Your task to perform on an android device: Search for pizza restaurants on Maps Image 0: 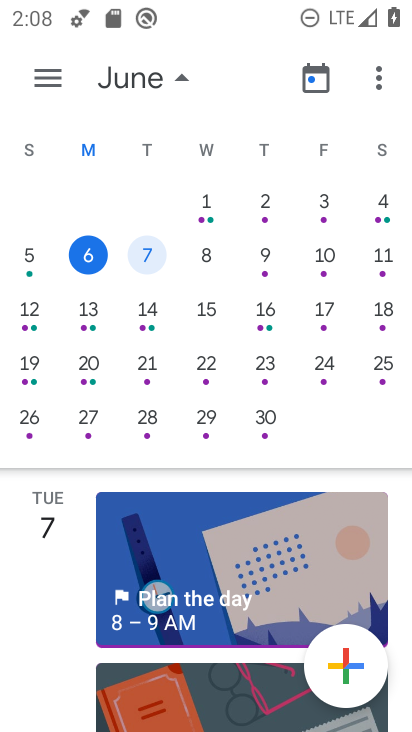
Step 0: press home button
Your task to perform on an android device: Search for pizza restaurants on Maps Image 1: 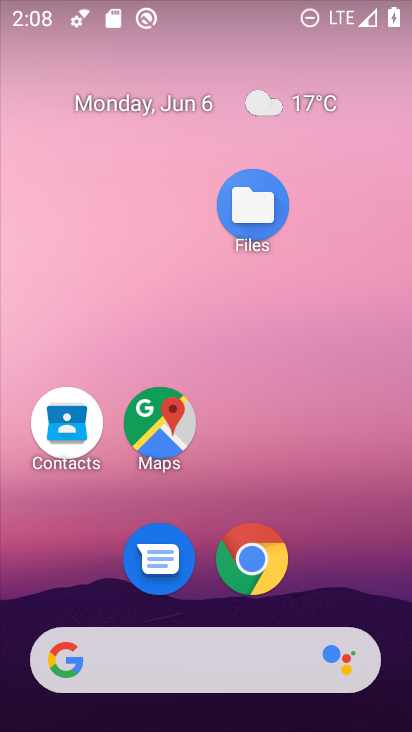
Step 1: drag from (295, 612) to (293, 124)
Your task to perform on an android device: Search for pizza restaurants on Maps Image 2: 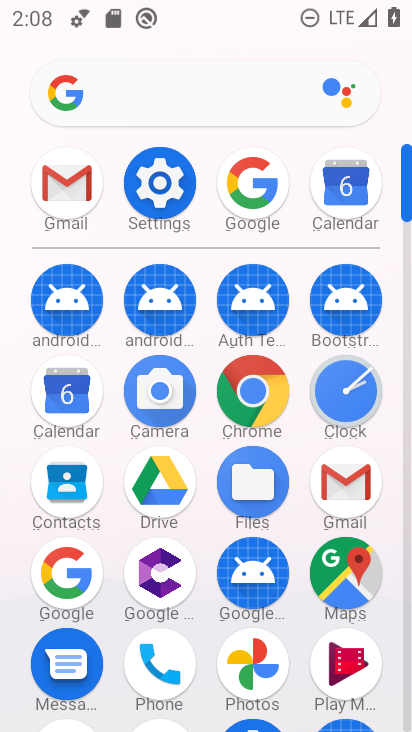
Step 2: click (351, 591)
Your task to perform on an android device: Search for pizza restaurants on Maps Image 3: 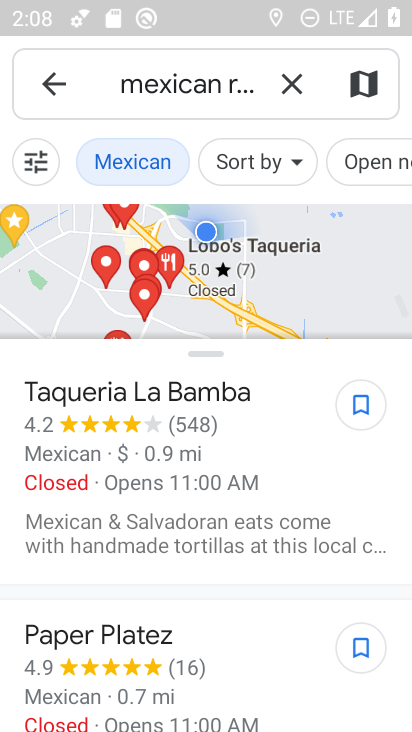
Step 3: click (293, 82)
Your task to perform on an android device: Search for pizza restaurants on Maps Image 4: 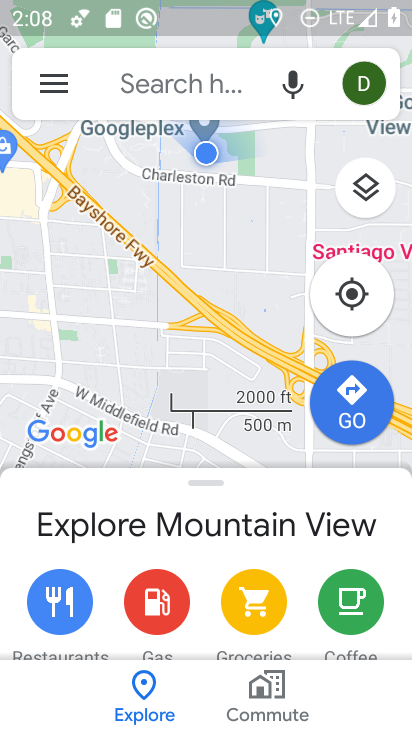
Step 4: click (202, 94)
Your task to perform on an android device: Search for pizza restaurants on Maps Image 5: 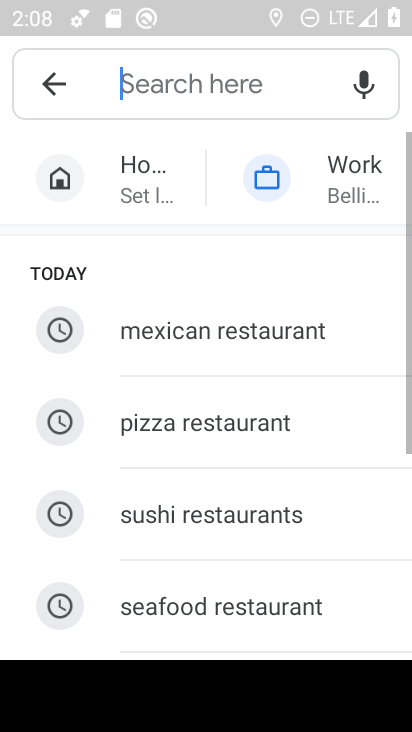
Step 5: click (223, 418)
Your task to perform on an android device: Search for pizza restaurants on Maps Image 6: 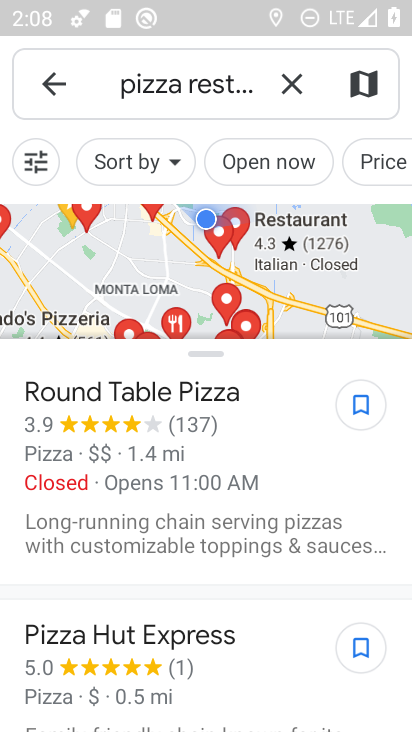
Step 6: task complete